Your task to perform on an android device: Play the last video I watched on Youtube Image 0: 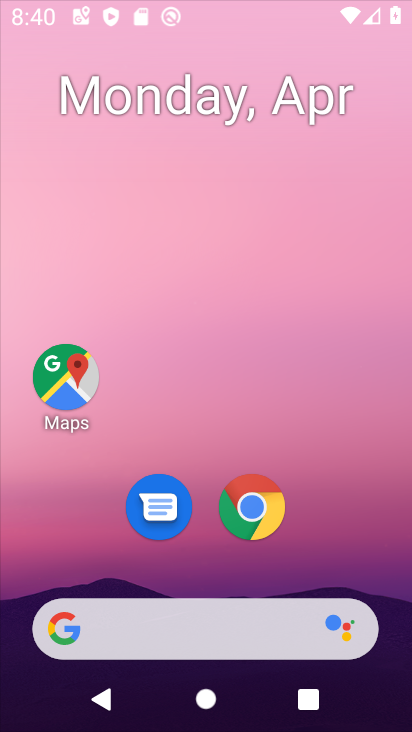
Step 0: click (244, 506)
Your task to perform on an android device: Play the last video I watched on Youtube Image 1: 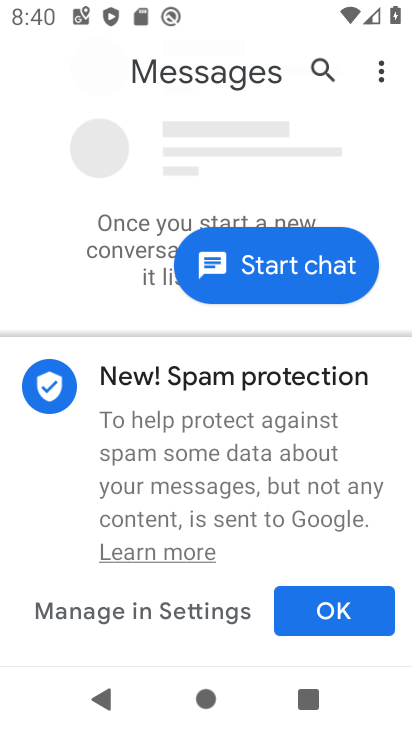
Step 1: click (355, 614)
Your task to perform on an android device: Play the last video I watched on Youtube Image 2: 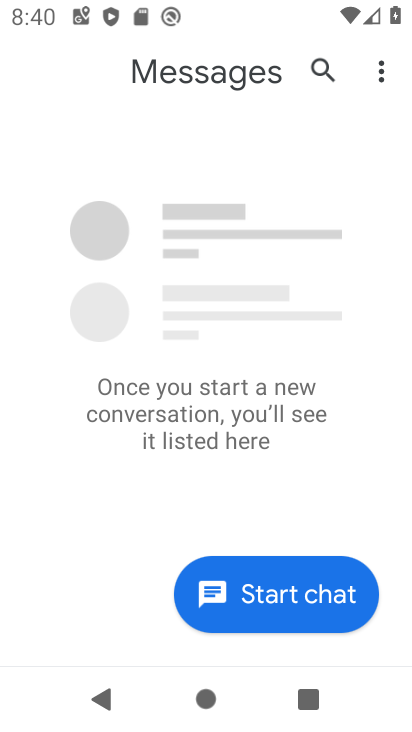
Step 2: press home button
Your task to perform on an android device: Play the last video I watched on Youtube Image 3: 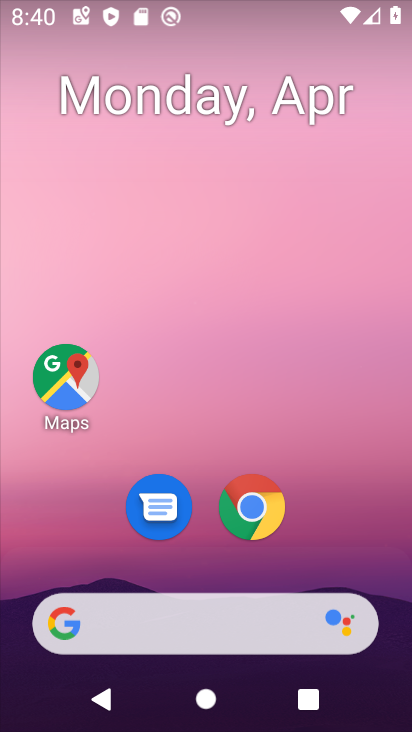
Step 3: drag from (340, 553) to (316, 119)
Your task to perform on an android device: Play the last video I watched on Youtube Image 4: 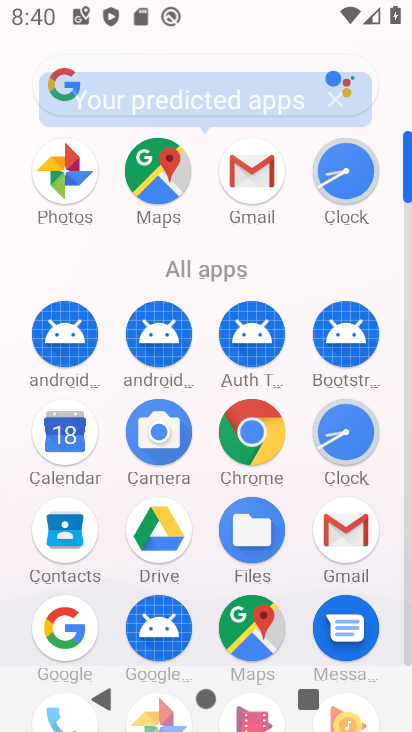
Step 4: drag from (345, 609) to (353, 185)
Your task to perform on an android device: Play the last video I watched on Youtube Image 5: 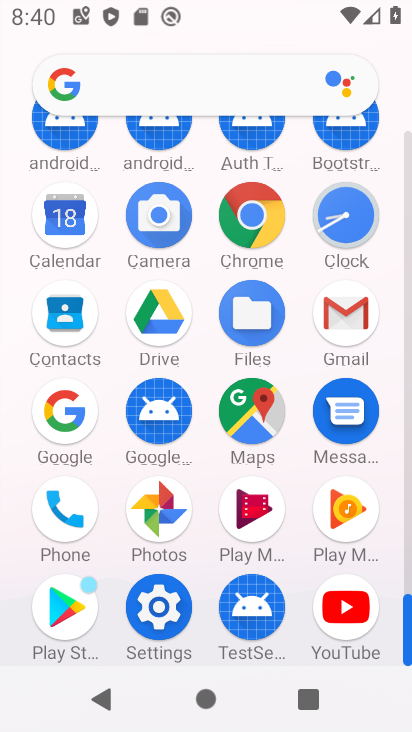
Step 5: click (344, 626)
Your task to perform on an android device: Play the last video I watched on Youtube Image 6: 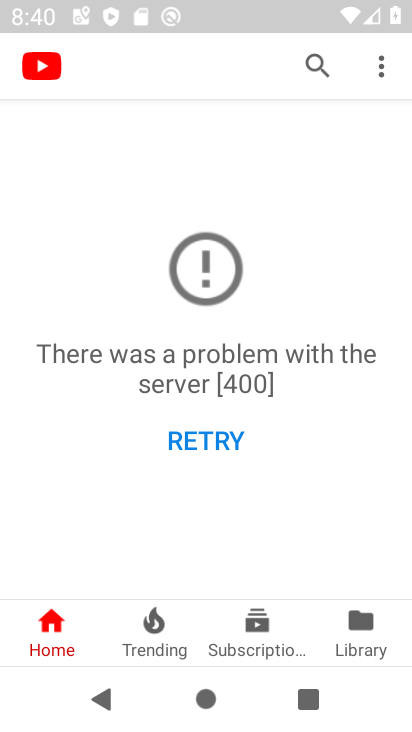
Step 6: click (214, 441)
Your task to perform on an android device: Play the last video I watched on Youtube Image 7: 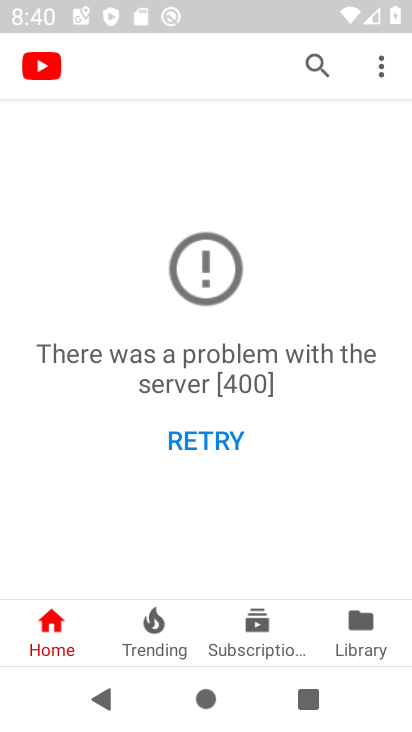
Step 7: click (193, 434)
Your task to perform on an android device: Play the last video I watched on Youtube Image 8: 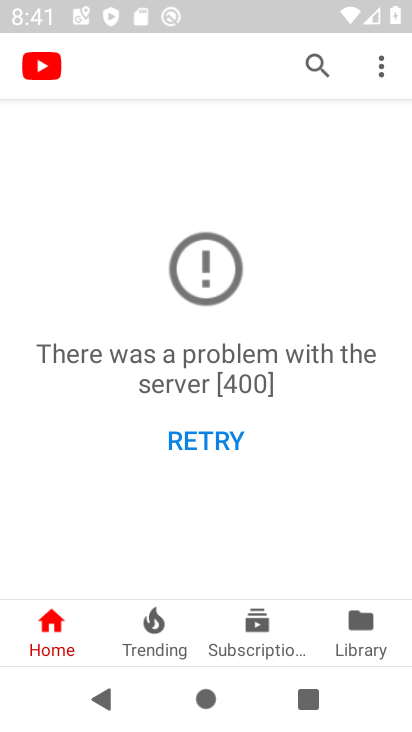
Step 8: task complete